Your task to perform on an android device: Check the weather Image 0: 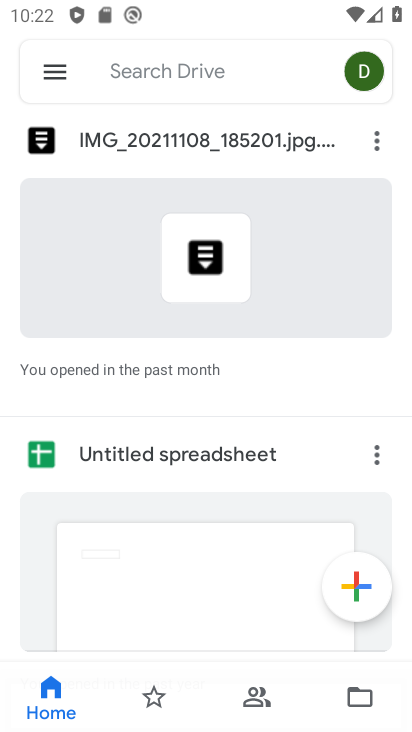
Step 0: press home button
Your task to perform on an android device: Check the weather Image 1: 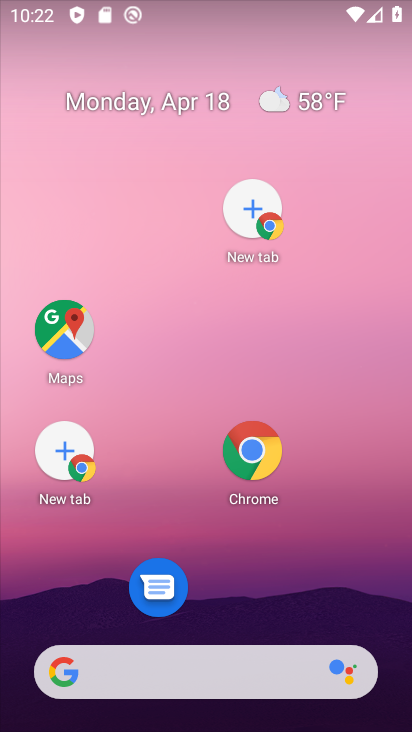
Step 1: task complete